Your task to perform on an android device: Open notification settings Image 0: 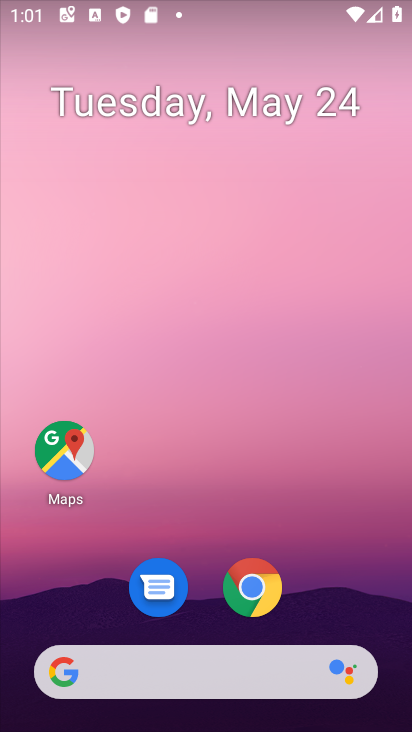
Step 0: drag from (234, 707) to (222, 147)
Your task to perform on an android device: Open notification settings Image 1: 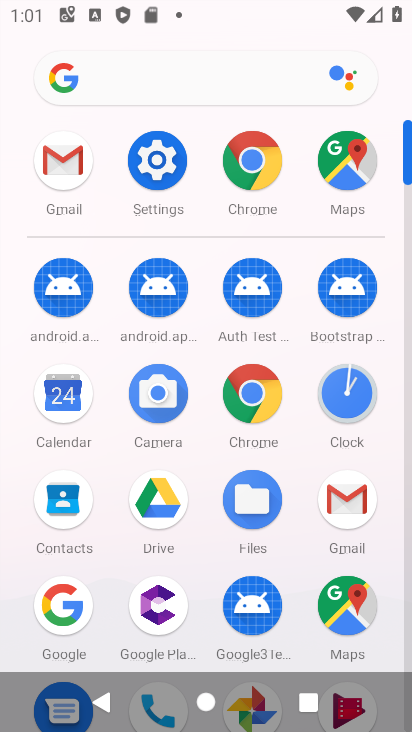
Step 1: click (168, 155)
Your task to perform on an android device: Open notification settings Image 2: 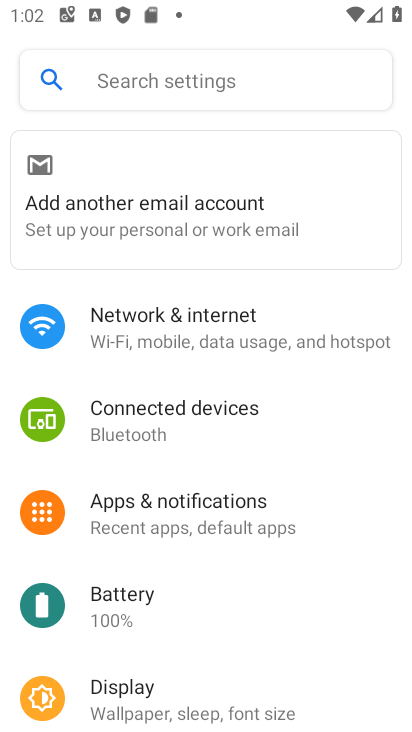
Step 2: click (270, 517)
Your task to perform on an android device: Open notification settings Image 3: 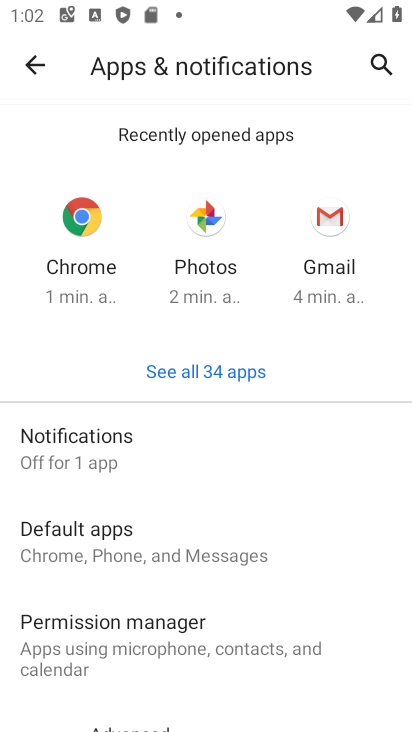
Step 3: task complete